Your task to perform on an android device: Search for Mexican restaurants on Maps Image 0: 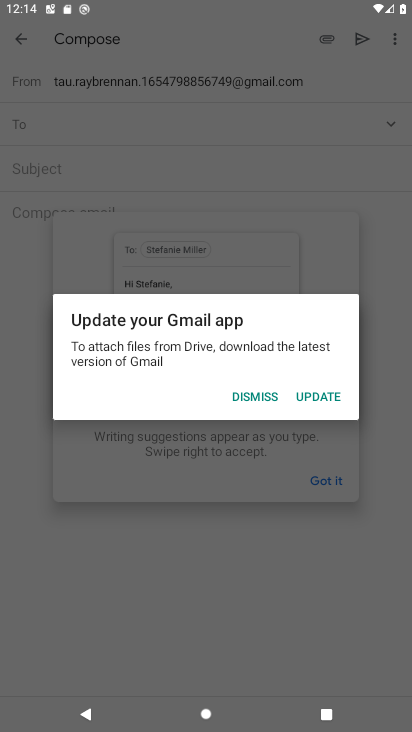
Step 0: press home button
Your task to perform on an android device: Search for Mexican restaurants on Maps Image 1: 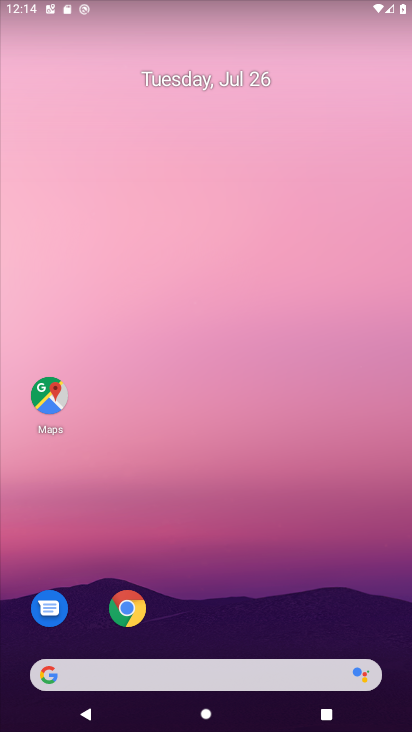
Step 1: drag from (215, 633) to (223, 301)
Your task to perform on an android device: Search for Mexican restaurants on Maps Image 2: 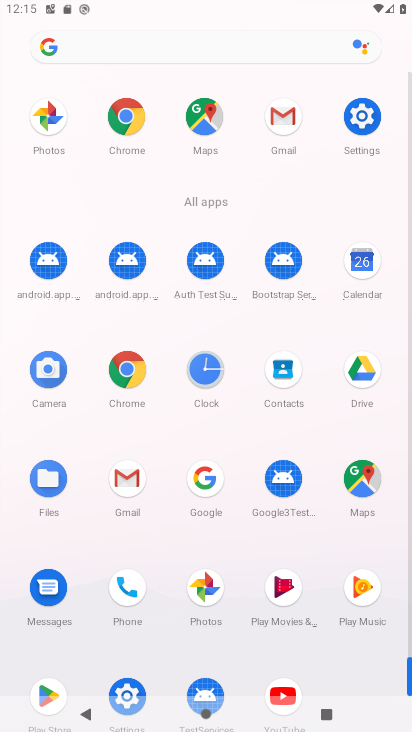
Step 2: click (130, 486)
Your task to perform on an android device: Search for Mexican restaurants on Maps Image 3: 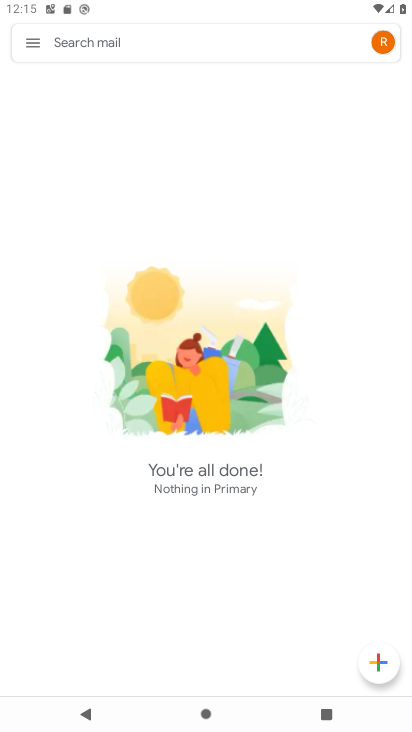
Step 3: task complete